Your task to perform on an android device: move a message to another label in the gmail app Image 0: 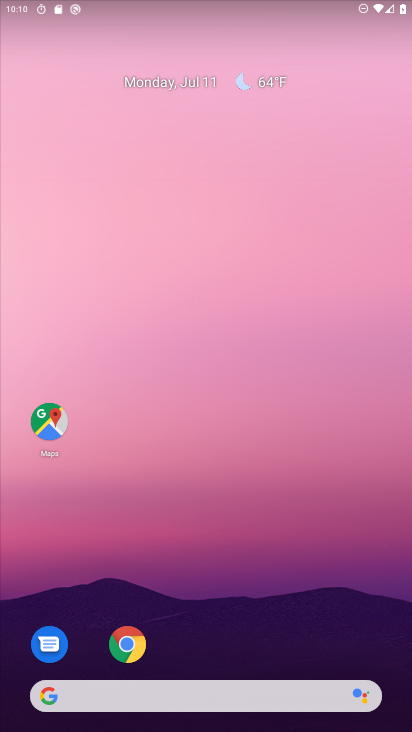
Step 0: drag from (308, 621) to (331, 110)
Your task to perform on an android device: move a message to another label in the gmail app Image 1: 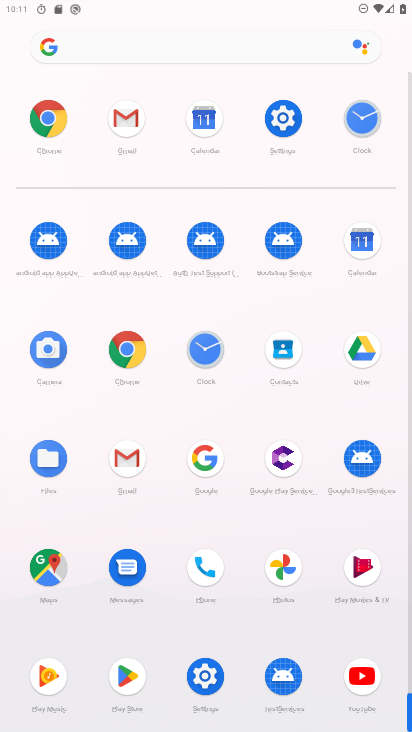
Step 1: click (137, 112)
Your task to perform on an android device: move a message to another label in the gmail app Image 2: 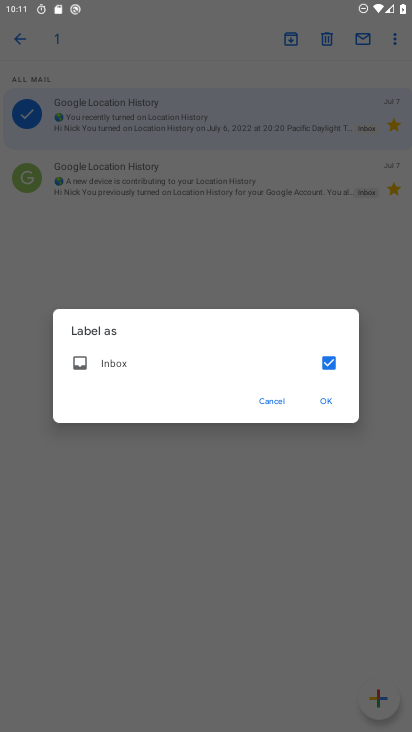
Step 2: press home button
Your task to perform on an android device: move a message to another label in the gmail app Image 3: 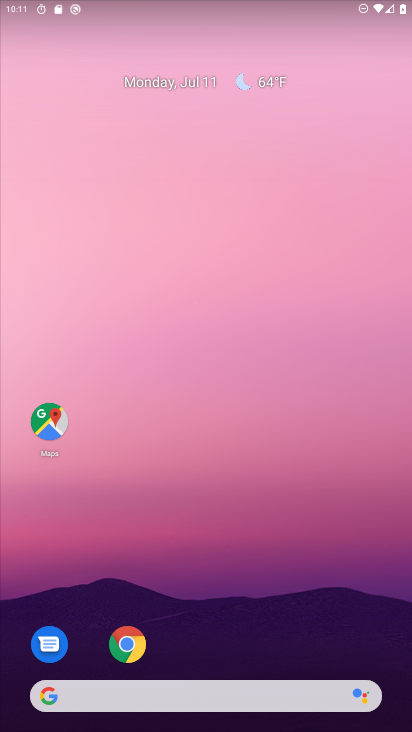
Step 3: drag from (251, 606) to (255, 124)
Your task to perform on an android device: move a message to another label in the gmail app Image 4: 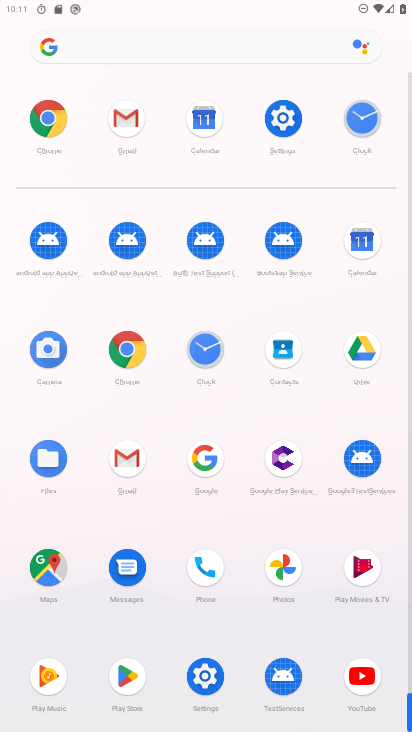
Step 4: click (136, 124)
Your task to perform on an android device: move a message to another label in the gmail app Image 5: 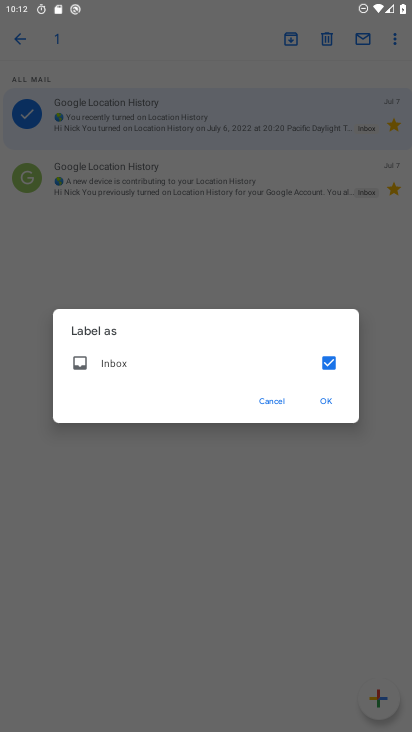
Step 5: task complete